Your task to perform on an android device: snooze an email in the gmail app Image 0: 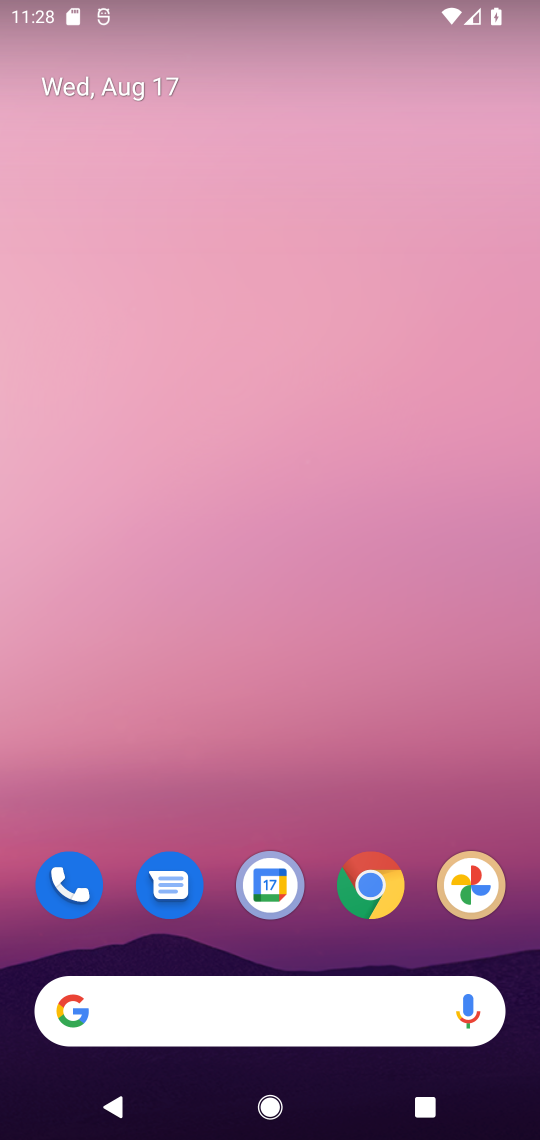
Step 0: drag from (312, 776) to (325, 342)
Your task to perform on an android device: snooze an email in the gmail app Image 1: 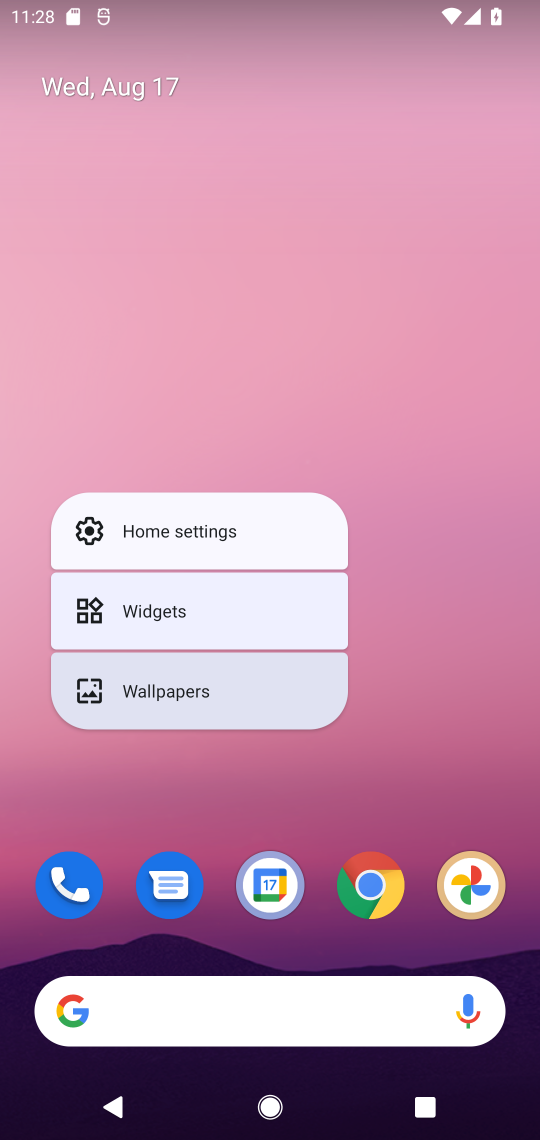
Step 1: click (446, 627)
Your task to perform on an android device: snooze an email in the gmail app Image 2: 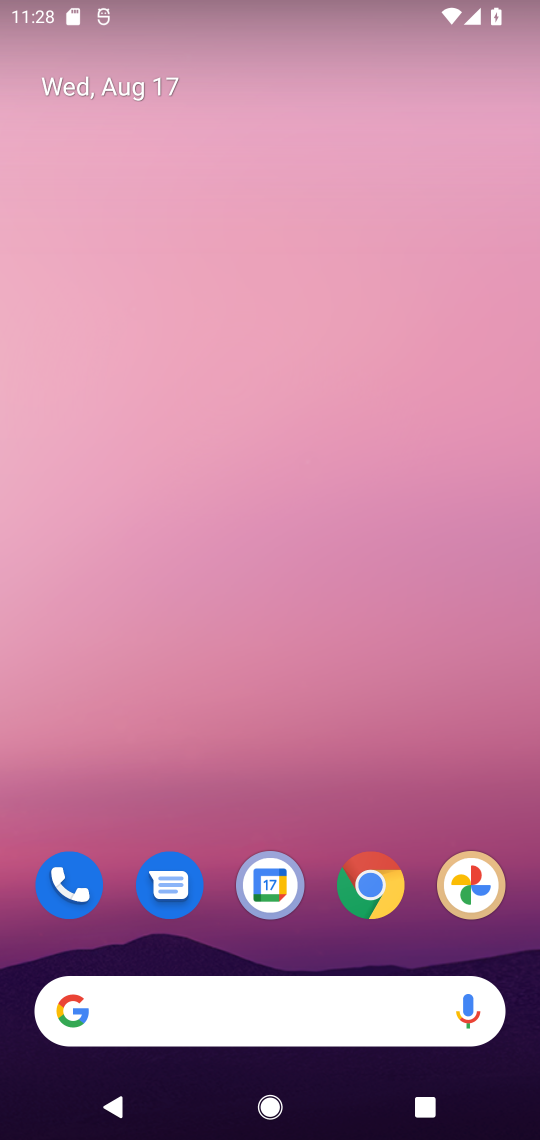
Step 2: drag from (467, 796) to (435, 374)
Your task to perform on an android device: snooze an email in the gmail app Image 3: 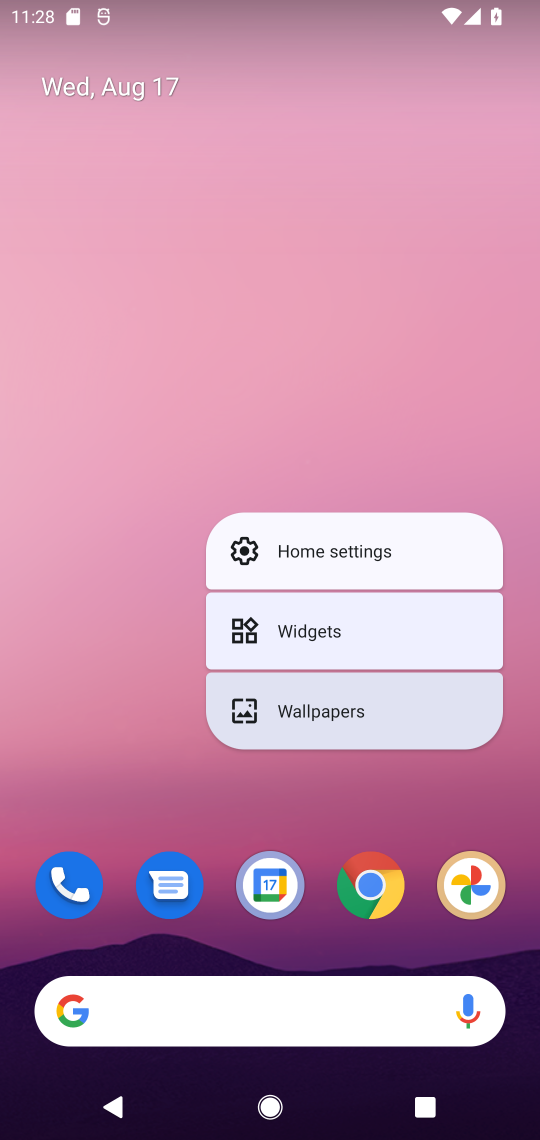
Step 3: click (435, 374)
Your task to perform on an android device: snooze an email in the gmail app Image 4: 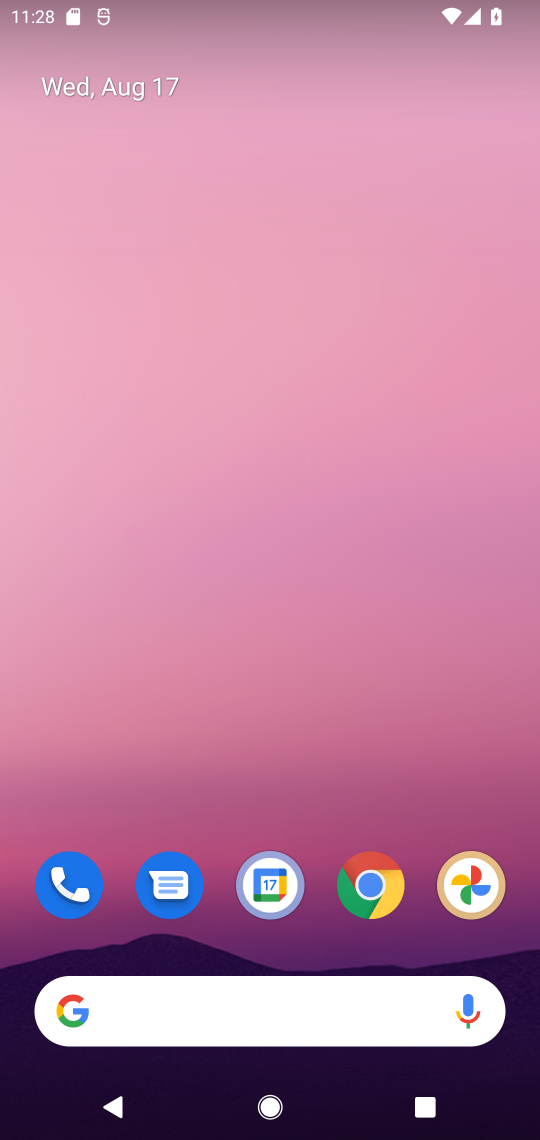
Step 4: drag from (279, 828) to (281, 196)
Your task to perform on an android device: snooze an email in the gmail app Image 5: 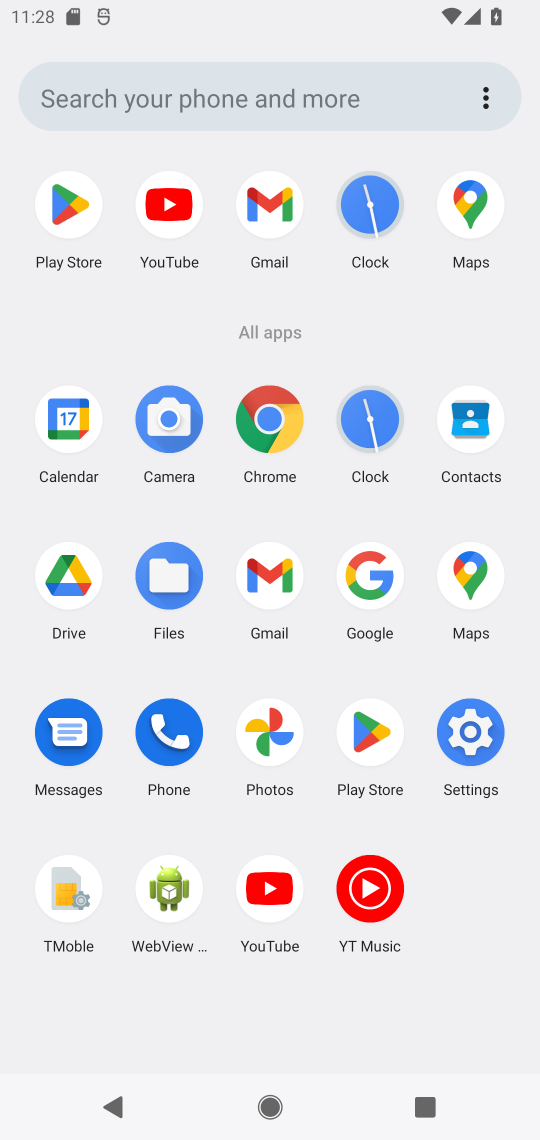
Step 5: click (263, 568)
Your task to perform on an android device: snooze an email in the gmail app Image 6: 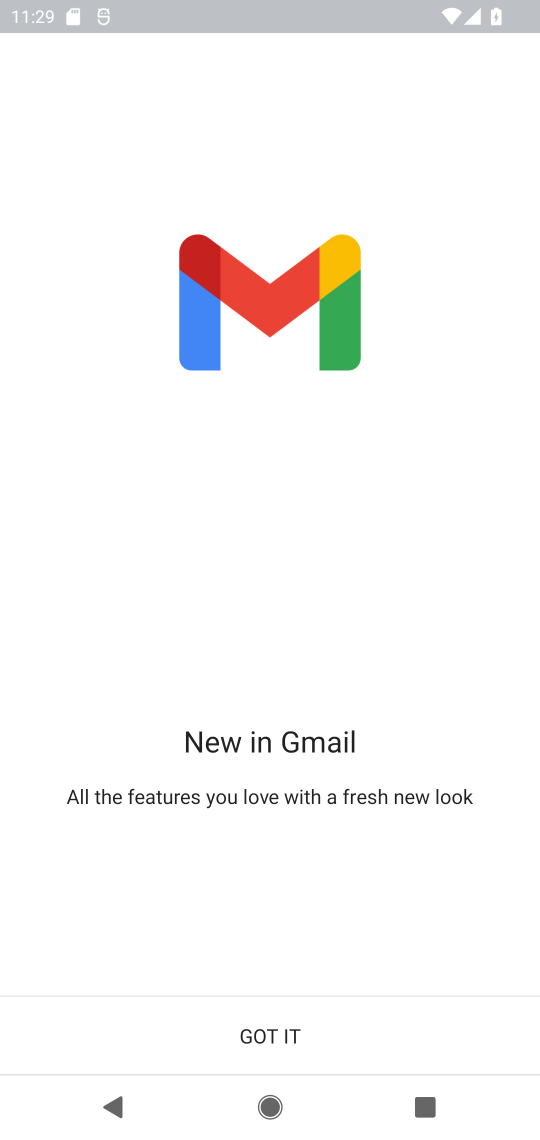
Step 6: click (346, 1033)
Your task to perform on an android device: snooze an email in the gmail app Image 7: 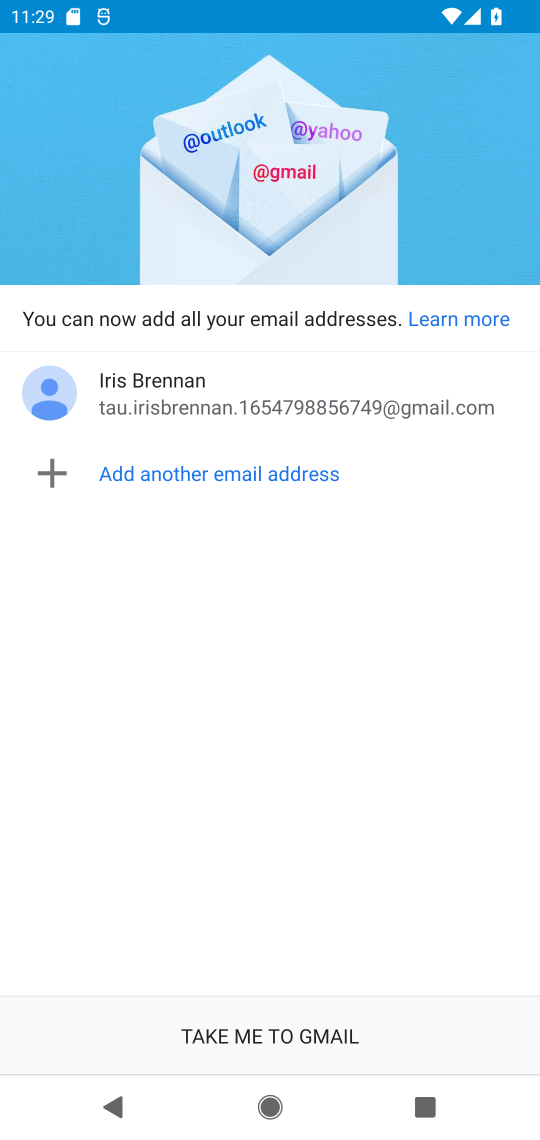
Step 7: click (316, 1024)
Your task to perform on an android device: snooze an email in the gmail app Image 8: 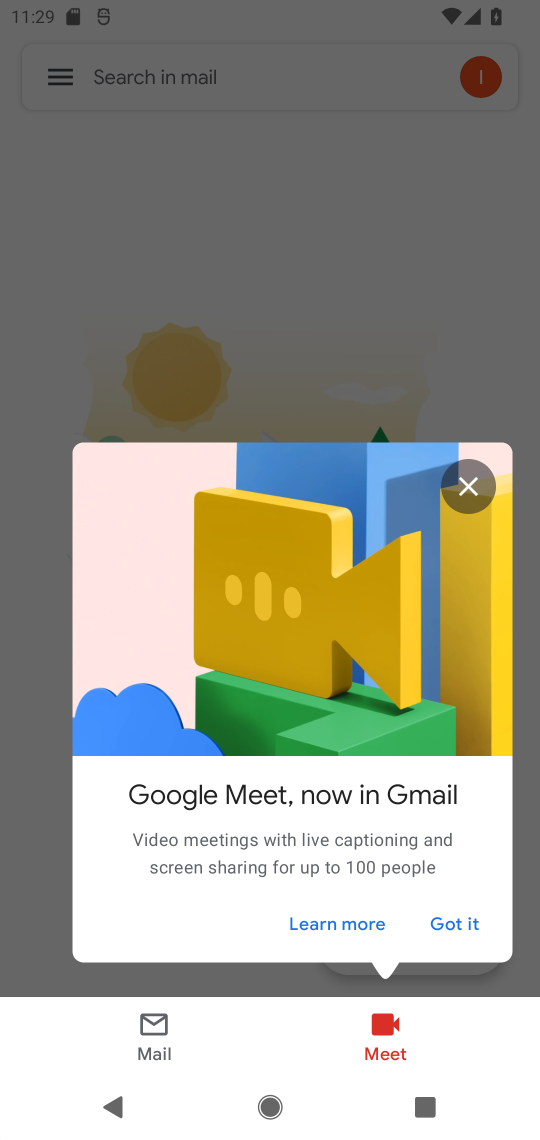
Step 8: click (473, 486)
Your task to perform on an android device: snooze an email in the gmail app Image 9: 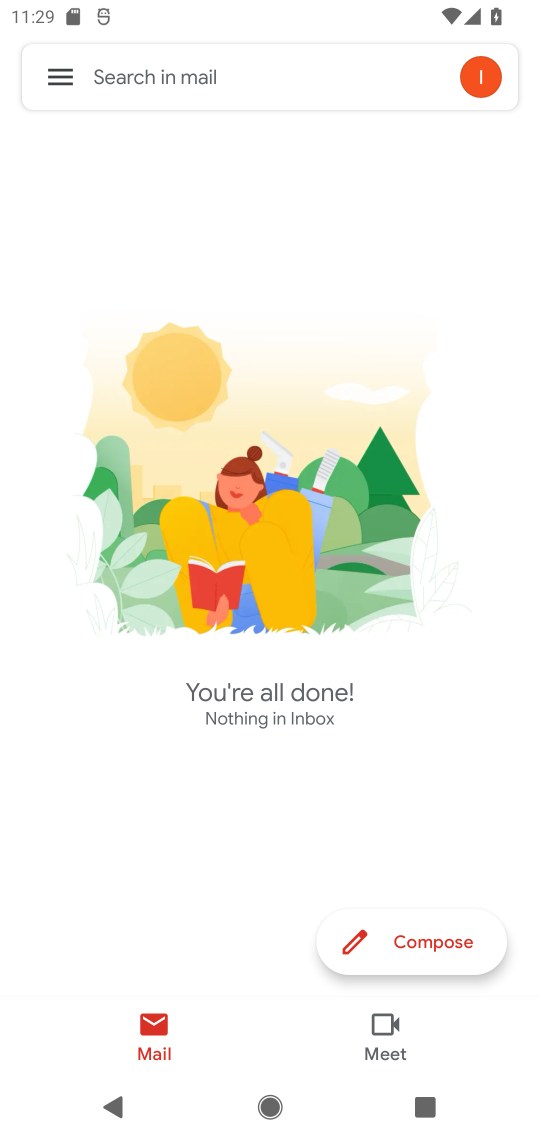
Step 9: click (62, 87)
Your task to perform on an android device: snooze an email in the gmail app Image 10: 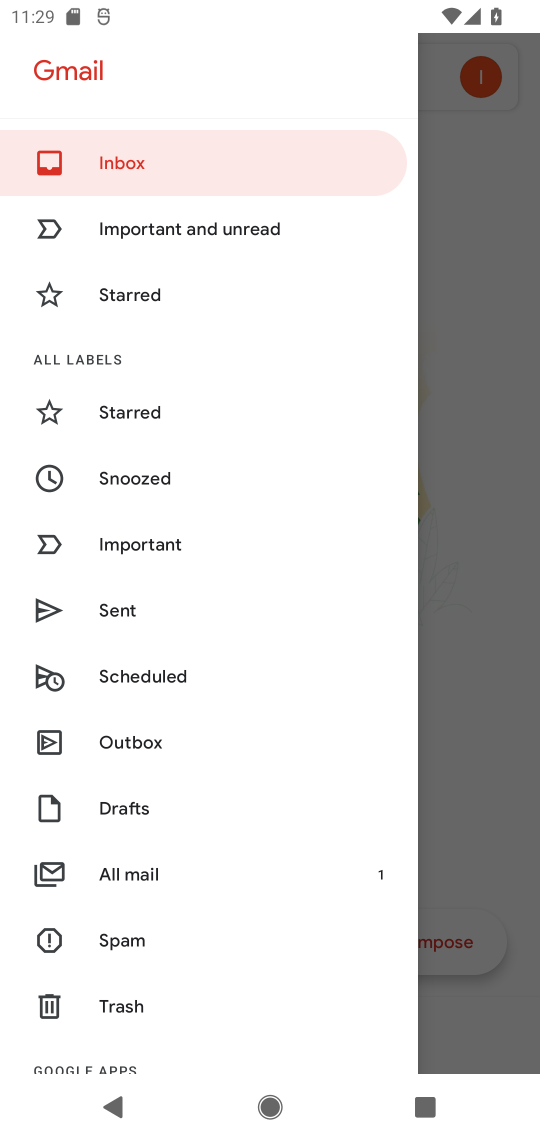
Step 10: click (153, 874)
Your task to perform on an android device: snooze an email in the gmail app Image 11: 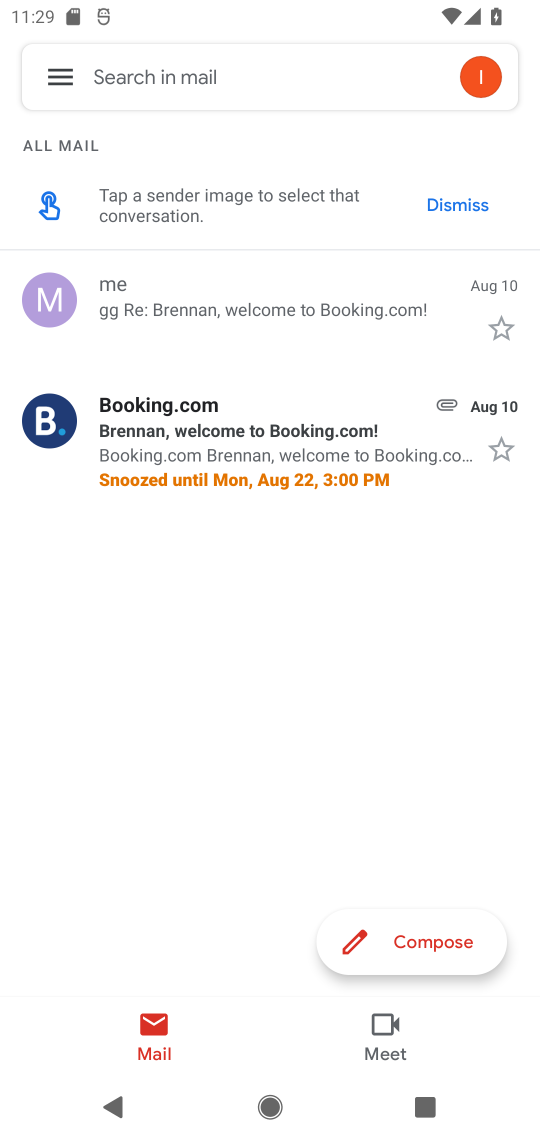
Step 11: click (300, 318)
Your task to perform on an android device: snooze an email in the gmail app Image 12: 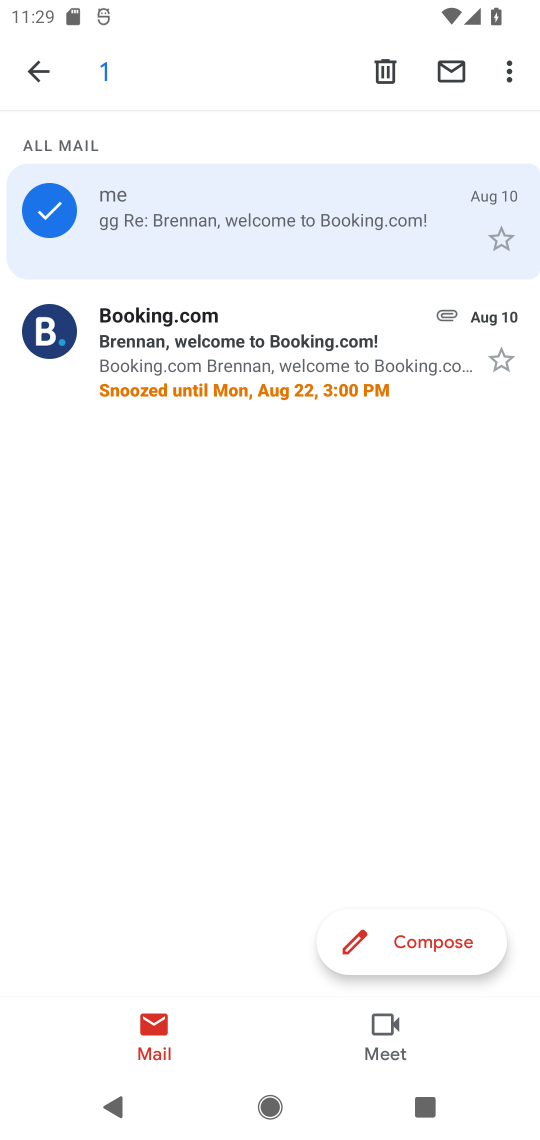
Step 12: click (520, 75)
Your task to perform on an android device: snooze an email in the gmail app Image 13: 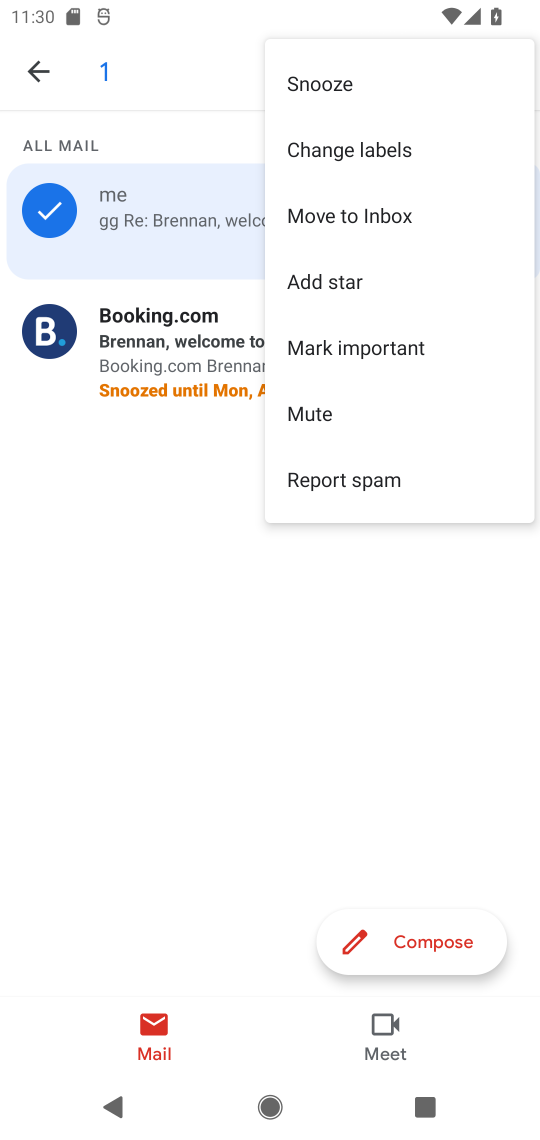
Step 13: click (370, 95)
Your task to perform on an android device: snooze an email in the gmail app Image 14: 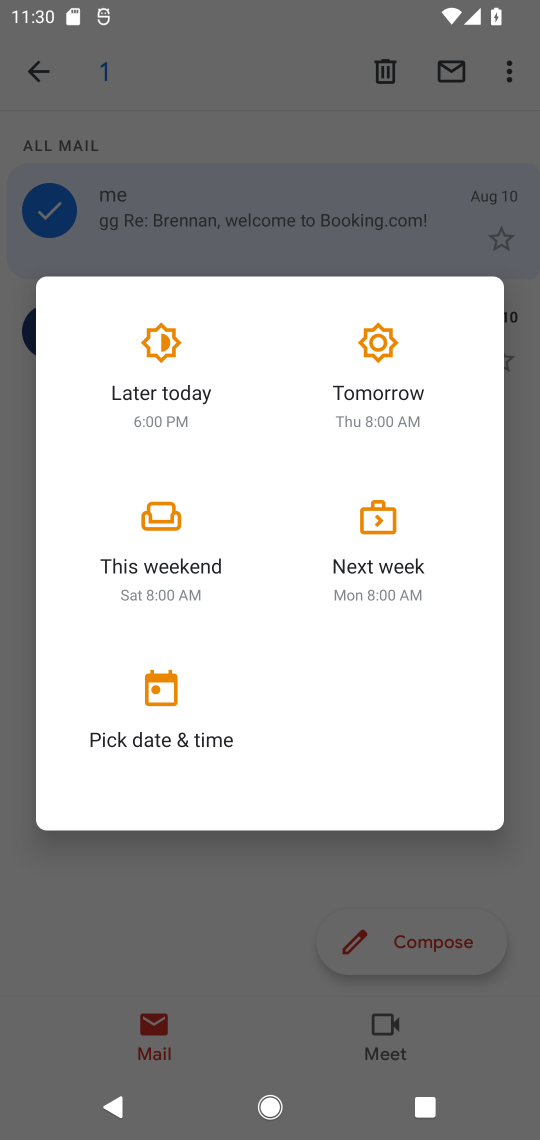
Step 14: click (378, 364)
Your task to perform on an android device: snooze an email in the gmail app Image 15: 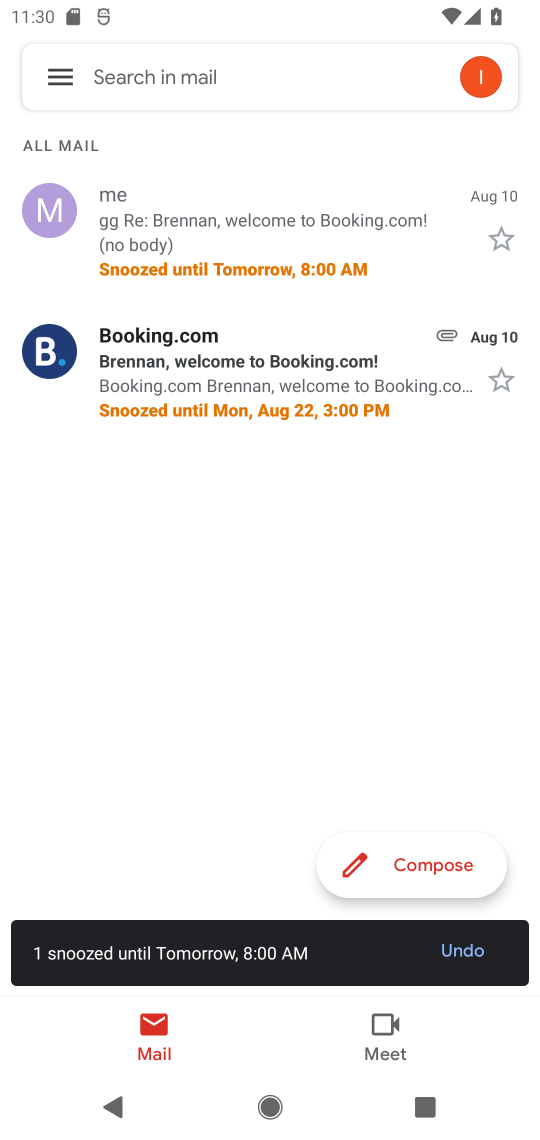
Step 15: task complete